Your task to perform on an android device: Look up the best rated gaming chairs on Target. Image 0: 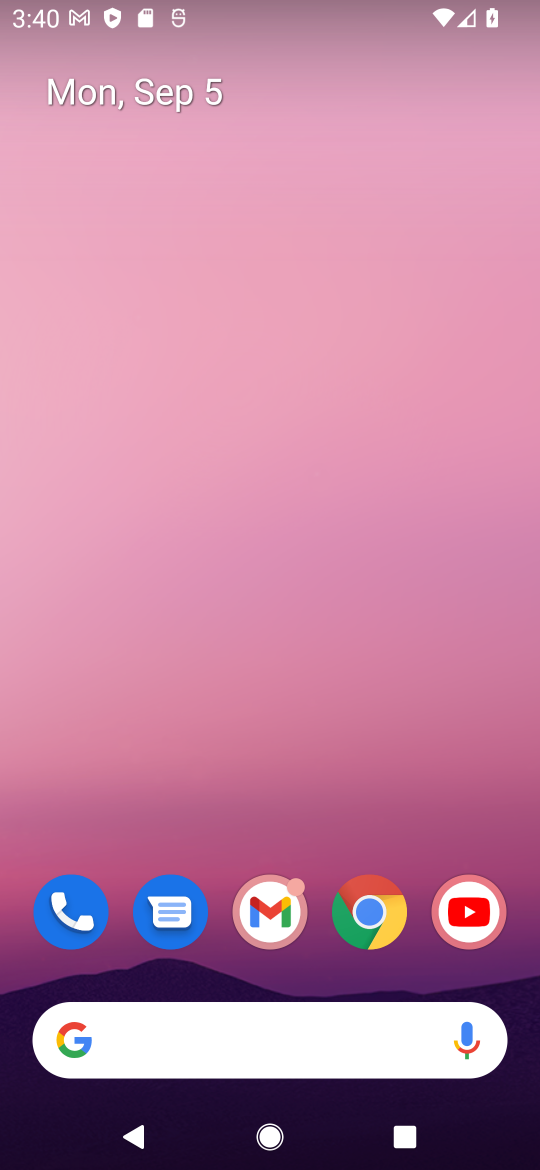
Step 0: click (387, 931)
Your task to perform on an android device: Look up the best rated gaming chairs on Target. Image 1: 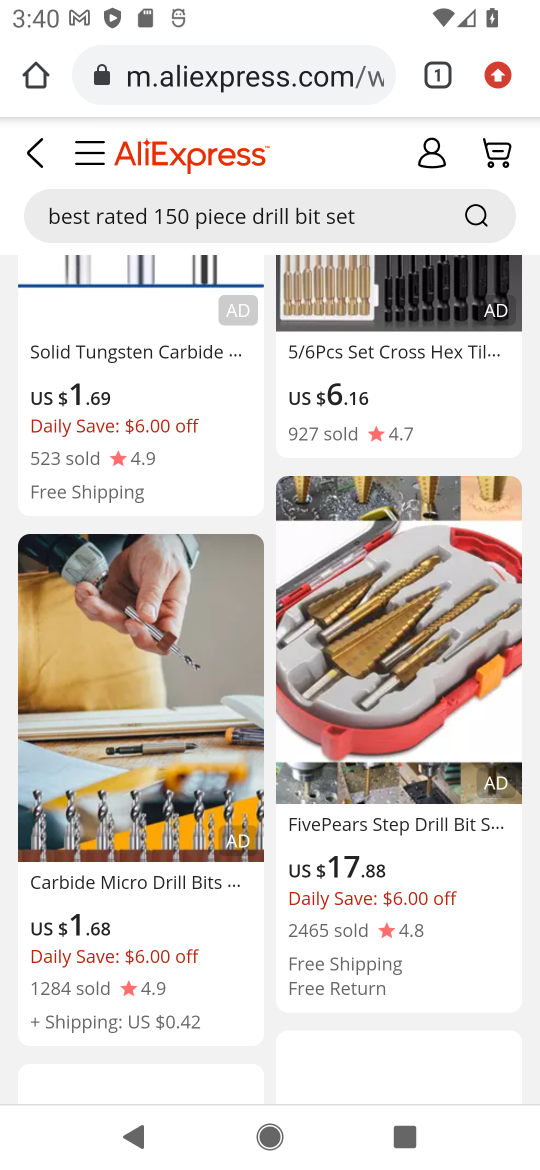
Step 1: click (237, 80)
Your task to perform on an android device: Look up the best rated gaming chairs on Target. Image 2: 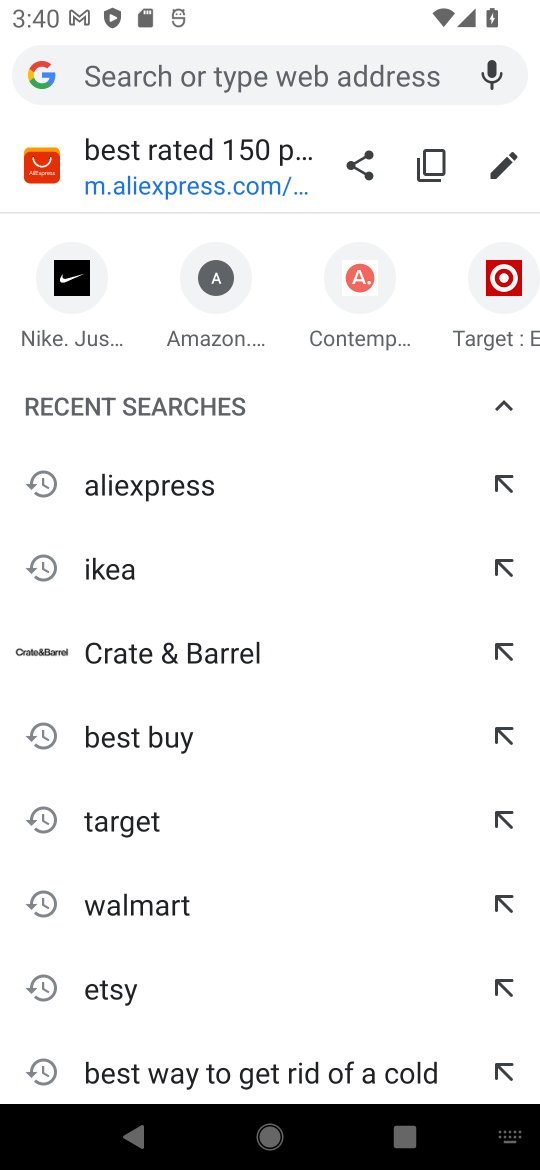
Step 2: type "target"
Your task to perform on an android device: Look up the best rated gaming chairs on Target. Image 3: 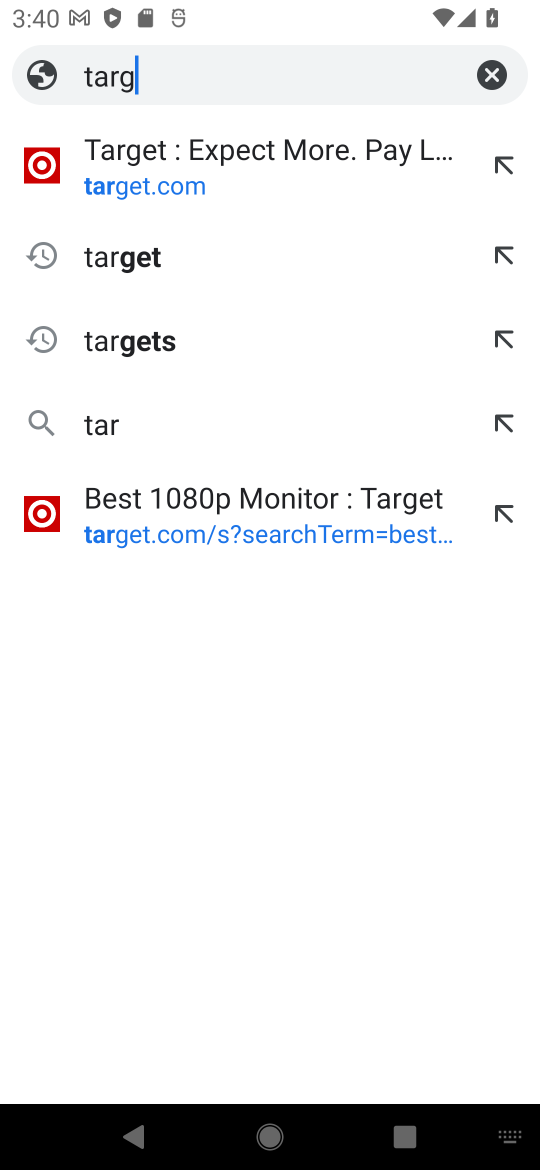
Step 3: type ""
Your task to perform on an android device: Look up the best rated gaming chairs on Target. Image 4: 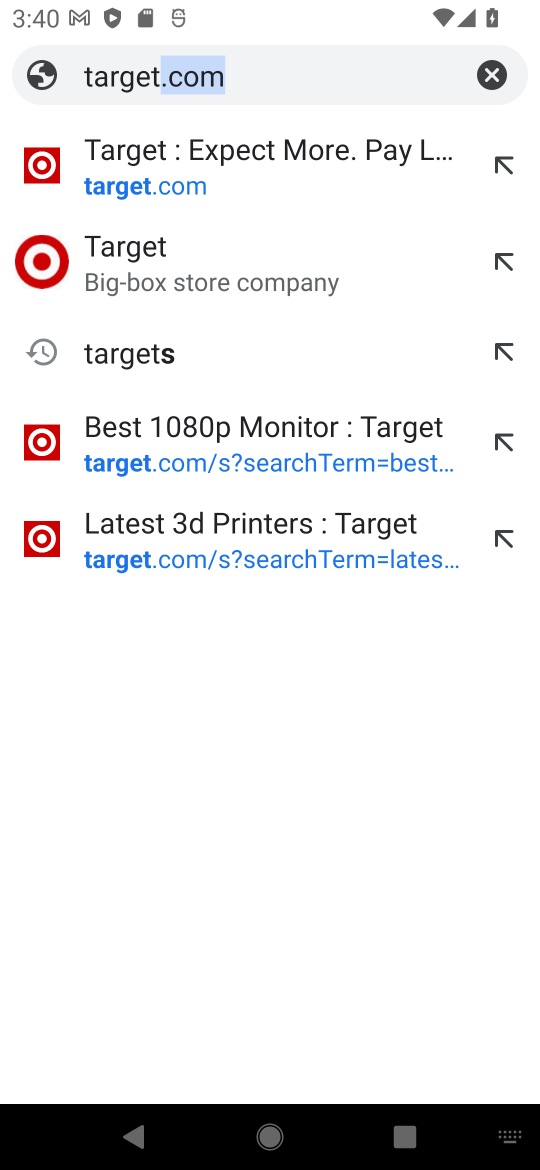
Step 4: press enter
Your task to perform on an android device: Look up the best rated gaming chairs on Target. Image 5: 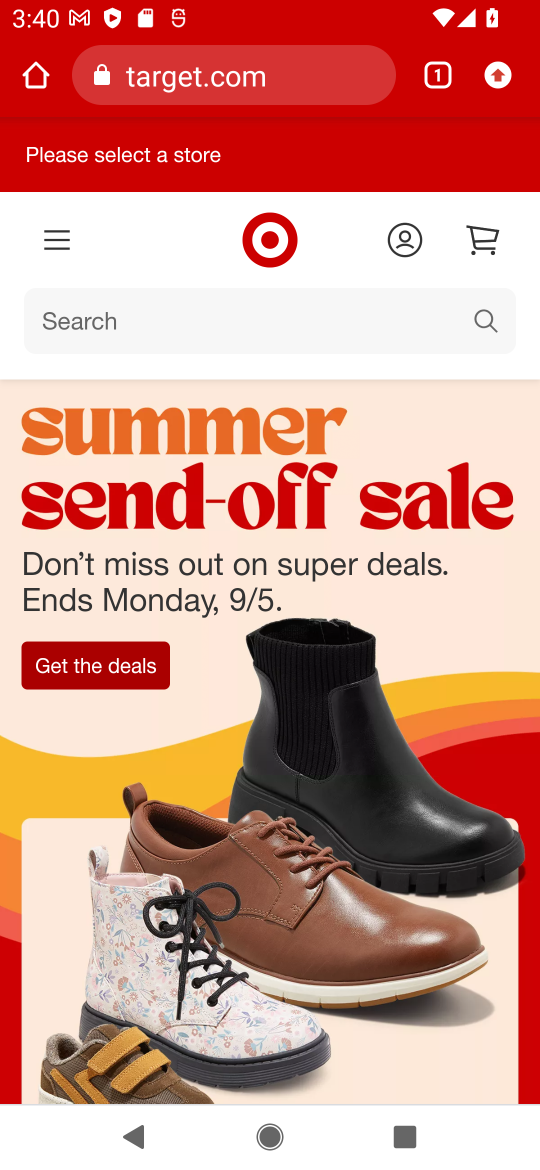
Step 5: click (172, 334)
Your task to perform on an android device: Look up the best rated gaming chairs on Target. Image 6: 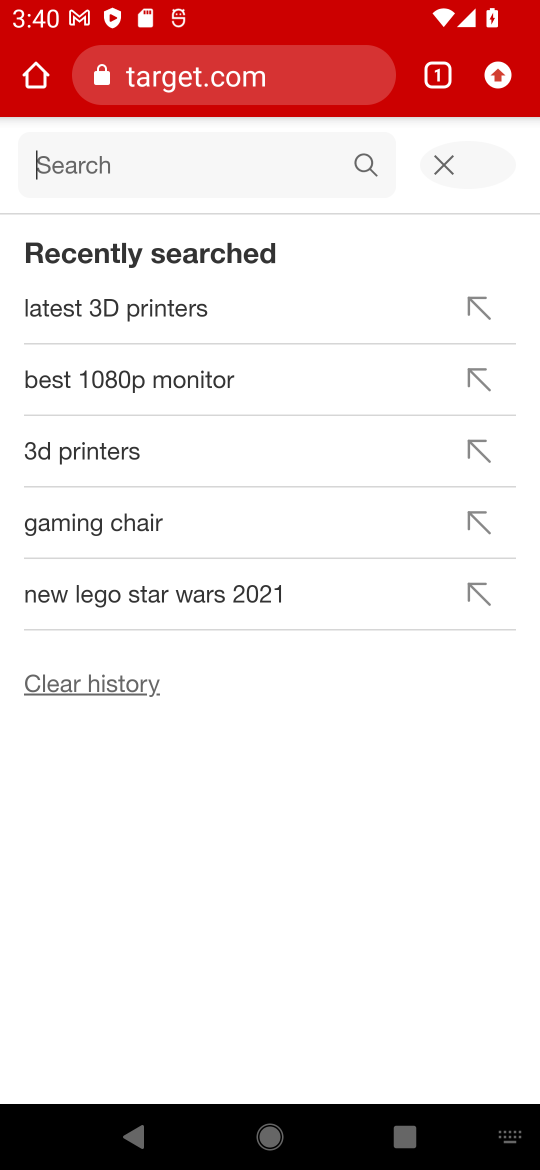
Step 6: type "best rated gaming chairs"
Your task to perform on an android device: Look up the best rated gaming chairs on Target. Image 7: 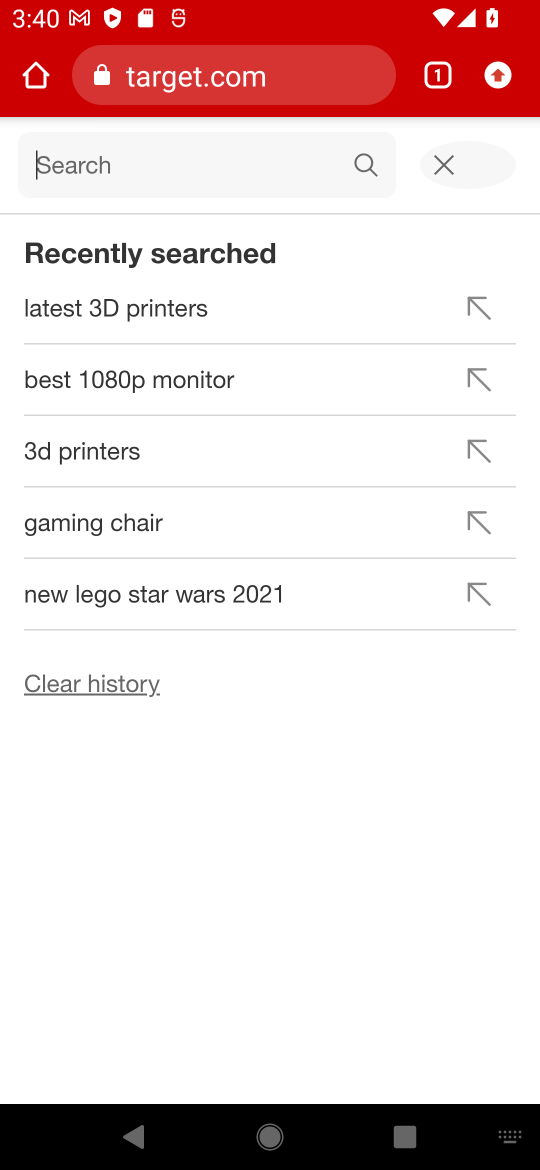
Step 7: type ""
Your task to perform on an android device: Look up the best rated gaming chairs on Target. Image 8: 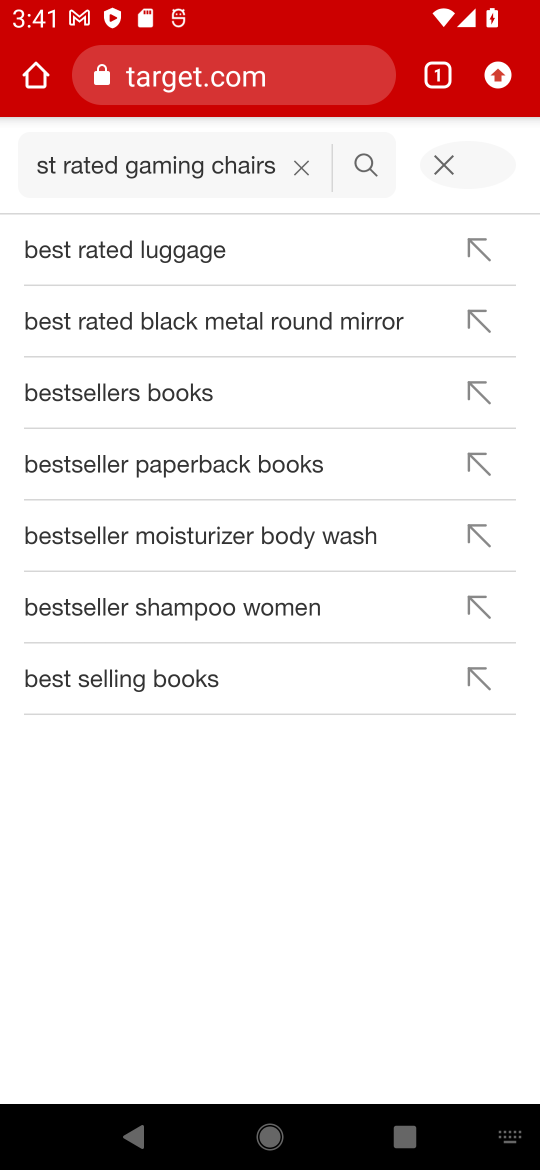
Step 8: press enter
Your task to perform on an android device: Look up the best rated gaming chairs on Target. Image 9: 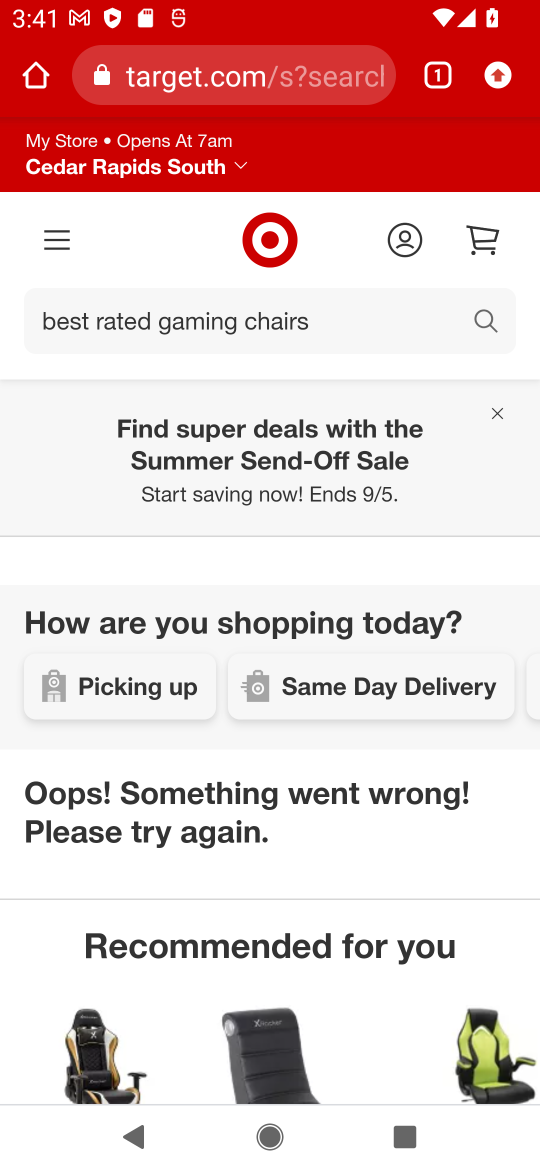
Step 9: click (210, 774)
Your task to perform on an android device: Look up the best rated gaming chairs on Target. Image 10: 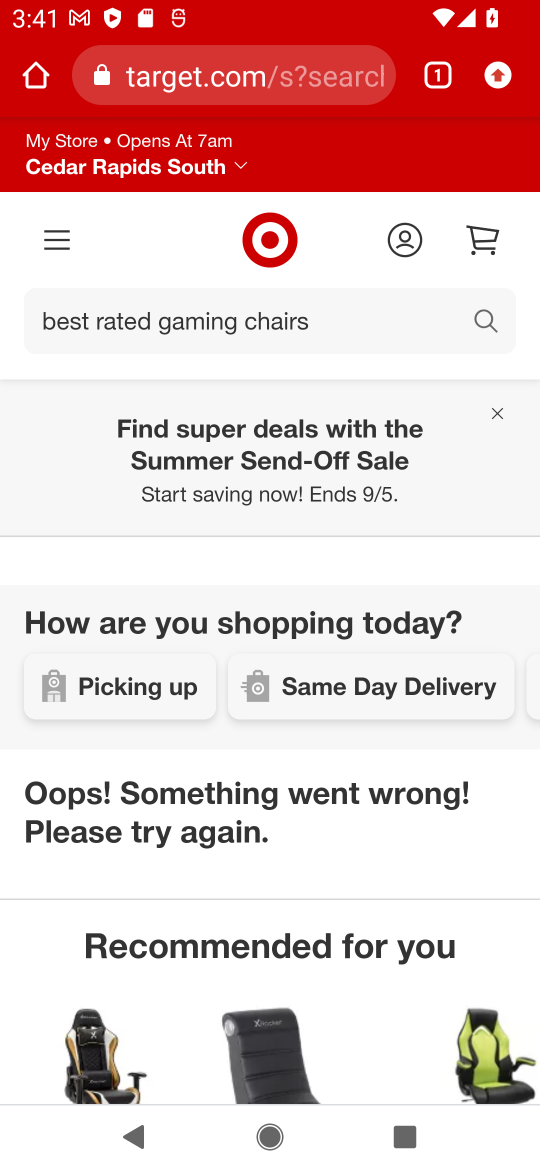
Step 10: drag from (400, 872) to (421, 475)
Your task to perform on an android device: Look up the best rated gaming chairs on Target. Image 11: 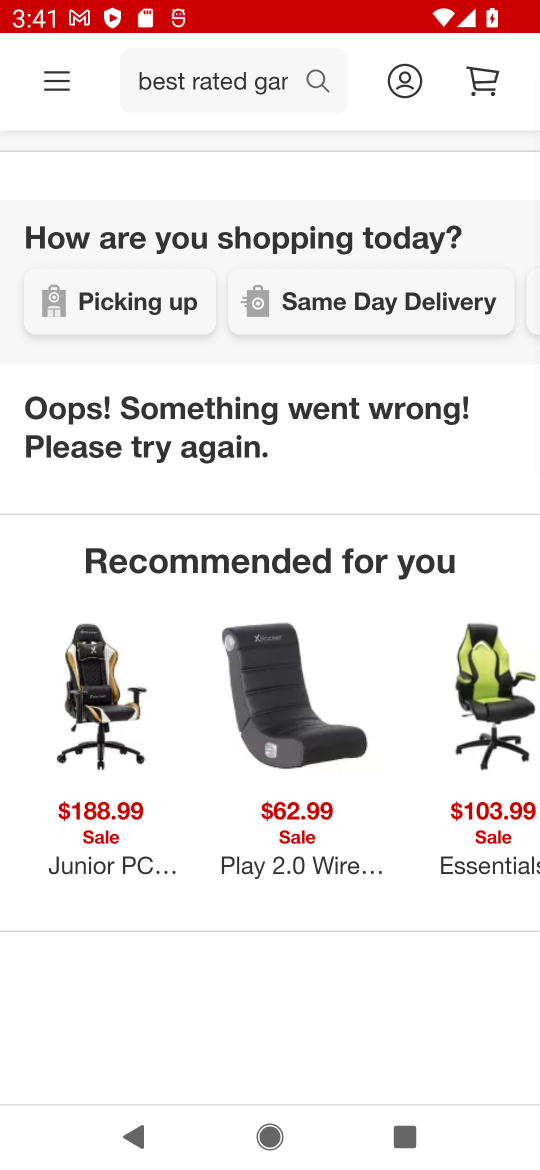
Step 11: drag from (376, 630) to (369, 423)
Your task to perform on an android device: Look up the best rated gaming chairs on Target. Image 12: 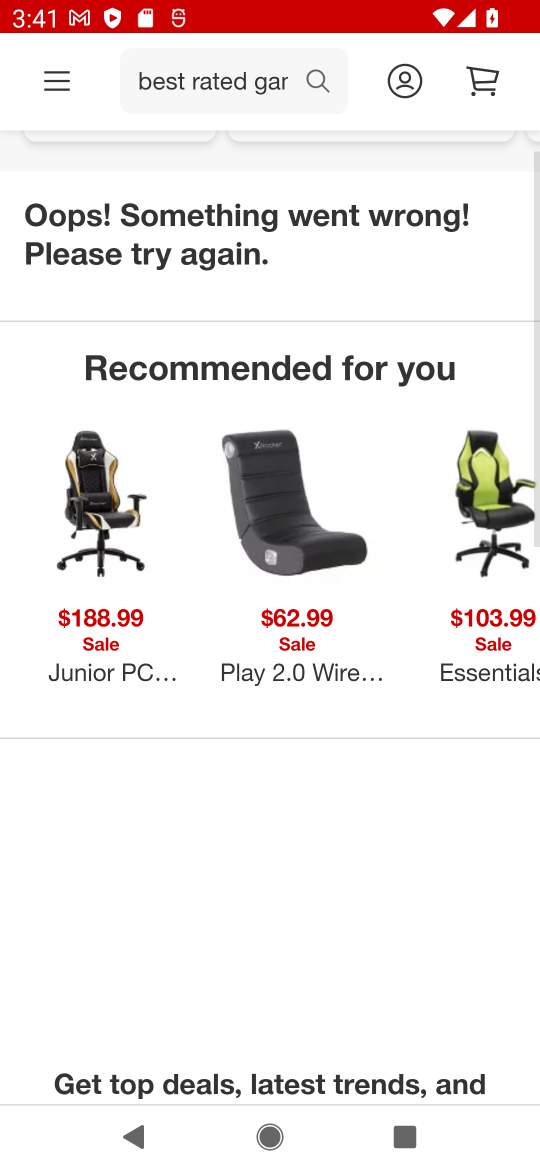
Step 12: drag from (324, 872) to (333, 437)
Your task to perform on an android device: Look up the best rated gaming chairs on Target. Image 13: 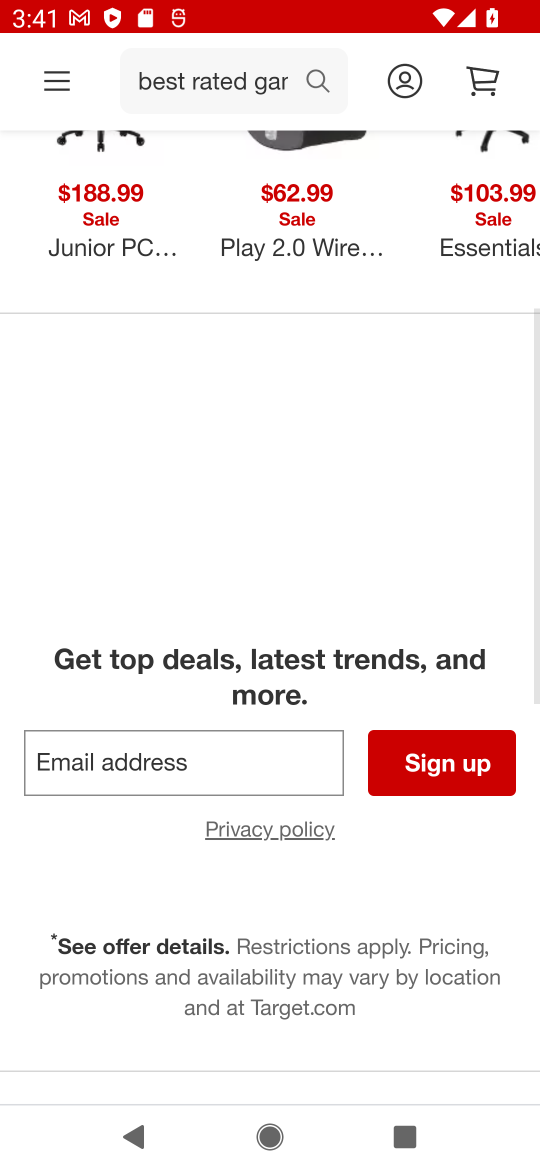
Step 13: drag from (317, 949) to (315, 884)
Your task to perform on an android device: Look up the best rated gaming chairs on Target. Image 14: 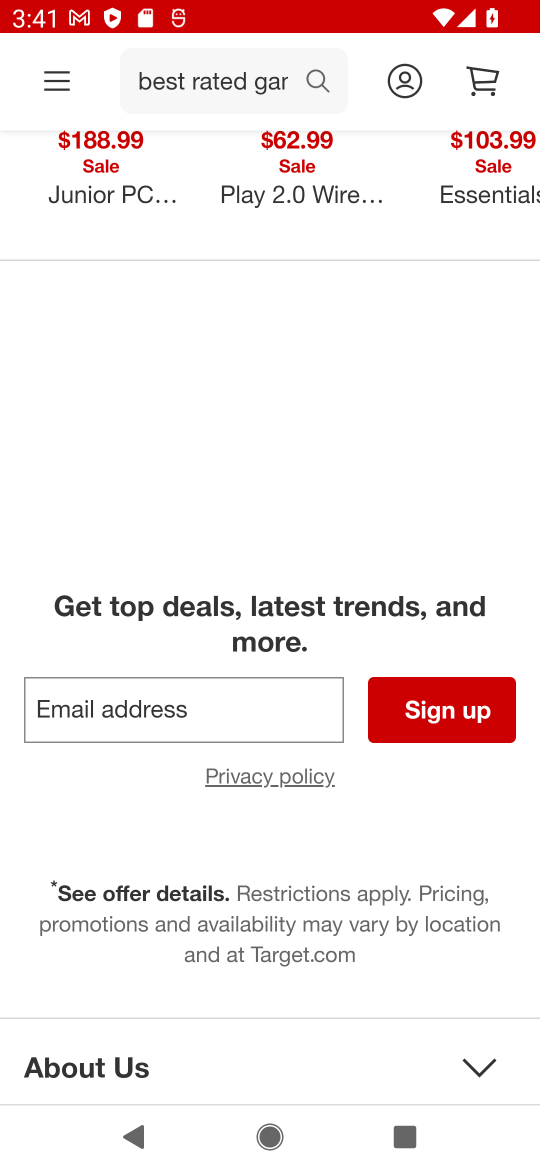
Step 14: drag from (275, 450) to (299, 806)
Your task to perform on an android device: Look up the best rated gaming chairs on Target. Image 15: 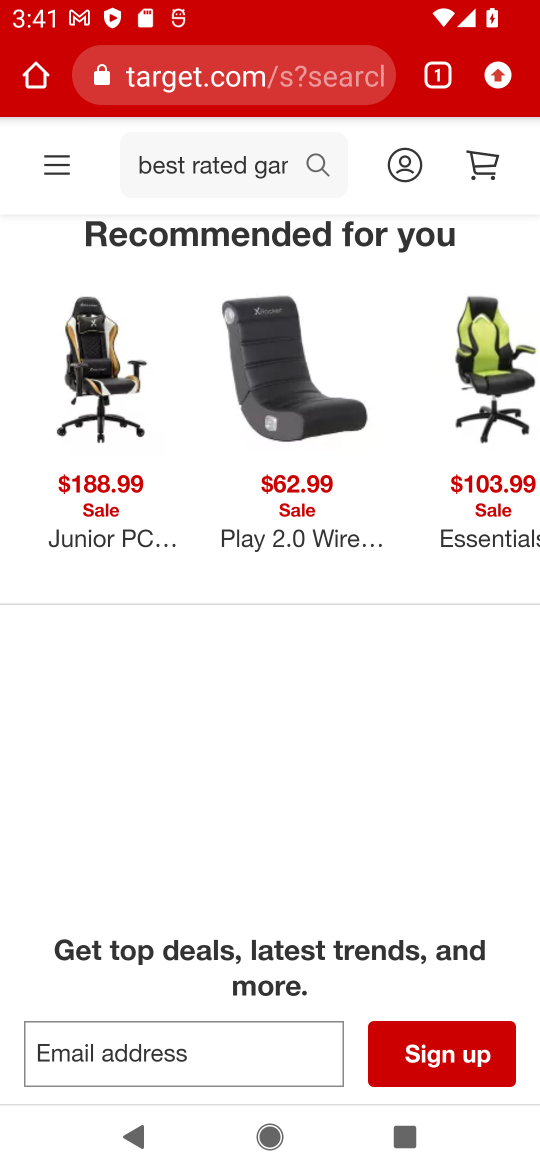
Step 15: click (289, 176)
Your task to perform on an android device: Look up the best rated gaming chairs on Target. Image 16: 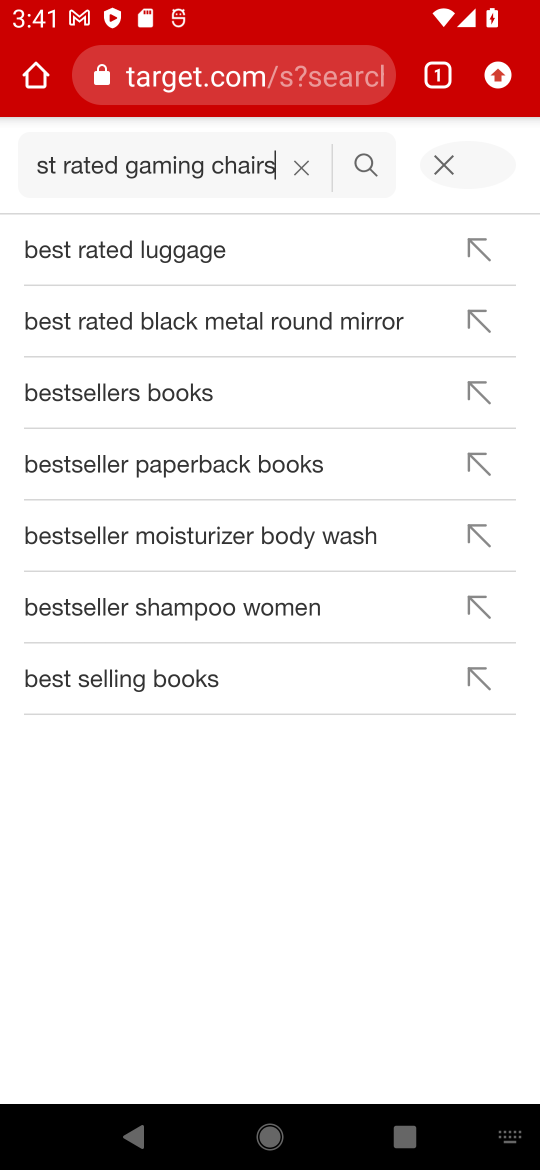
Step 16: click (305, 167)
Your task to perform on an android device: Look up the best rated gaming chairs on Target. Image 17: 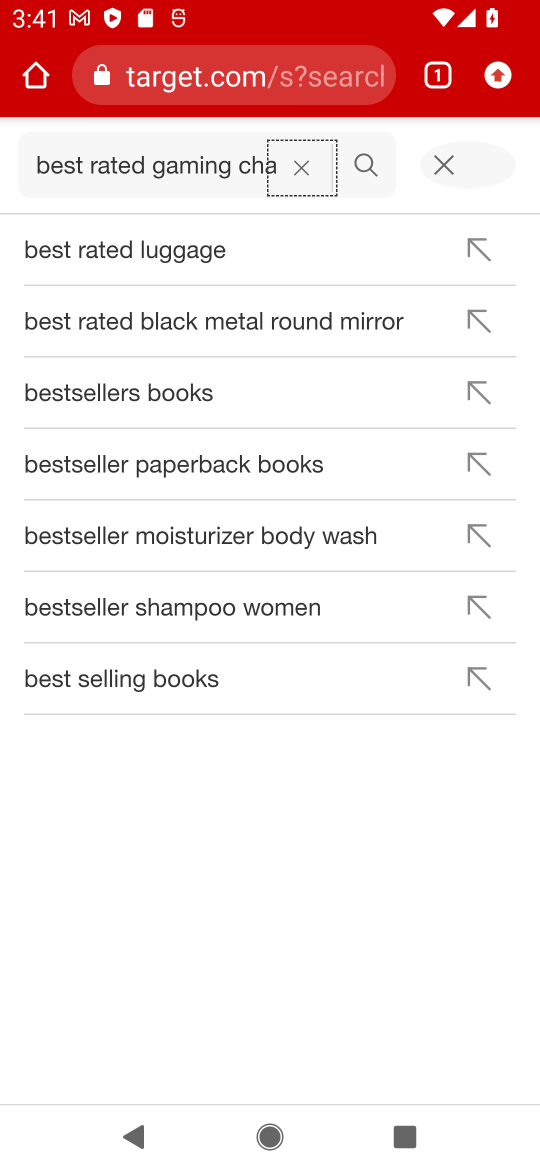
Step 17: click (290, 167)
Your task to perform on an android device: Look up the best rated gaming chairs on Target. Image 18: 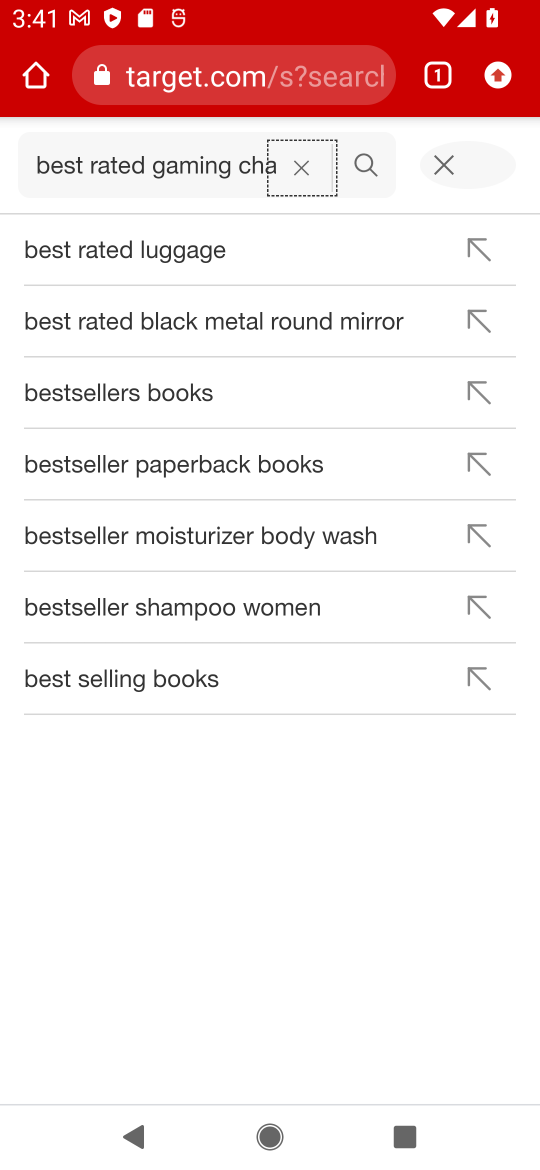
Step 18: click (309, 162)
Your task to perform on an android device: Look up the best rated gaming chairs on Target. Image 19: 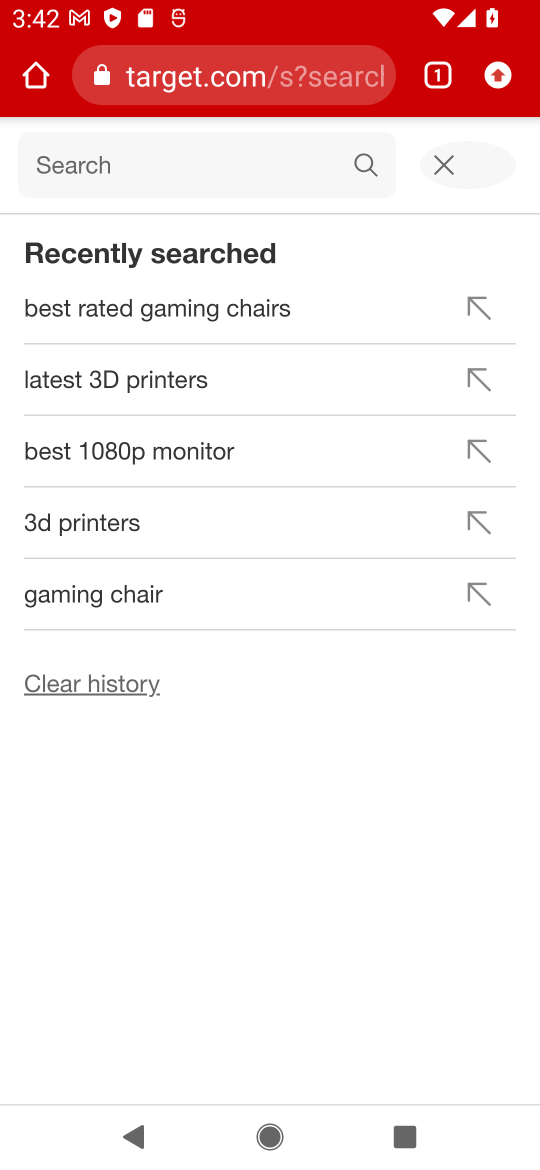
Step 19: click (295, 172)
Your task to perform on an android device: Look up the best rated gaming chairs on Target. Image 20: 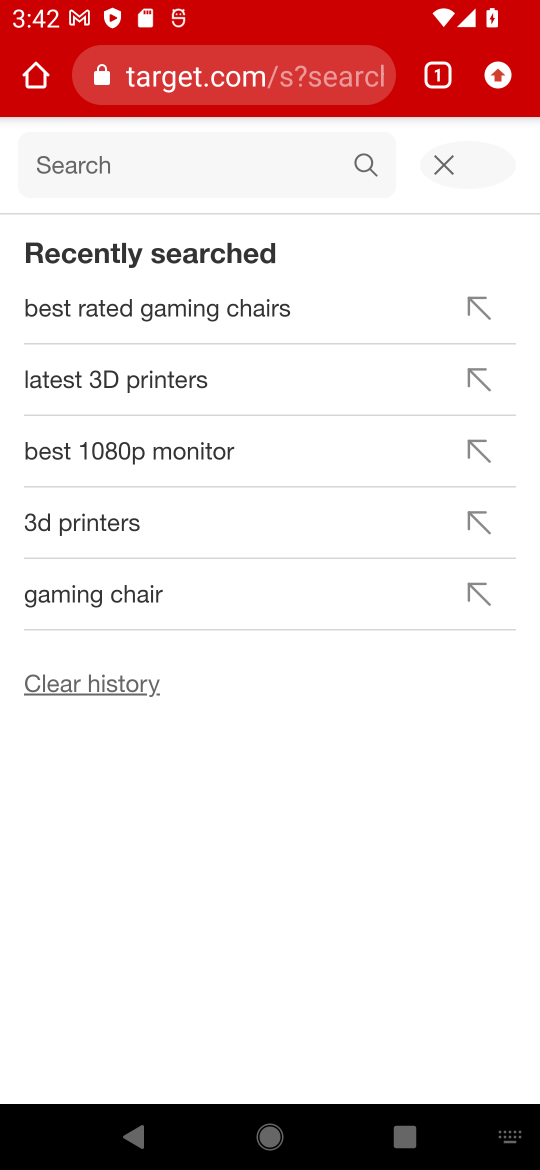
Step 20: click (171, 164)
Your task to perform on an android device: Look up the best rated gaming chairs on Target. Image 21: 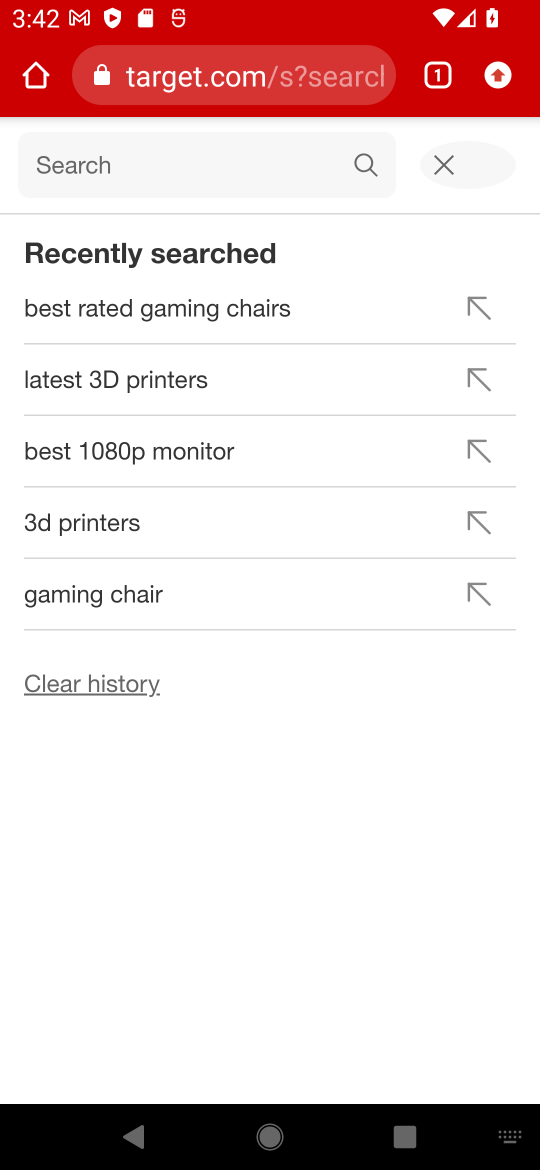
Step 21: type "gaming chairs"
Your task to perform on an android device: Look up the best rated gaming chairs on Target. Image 22: 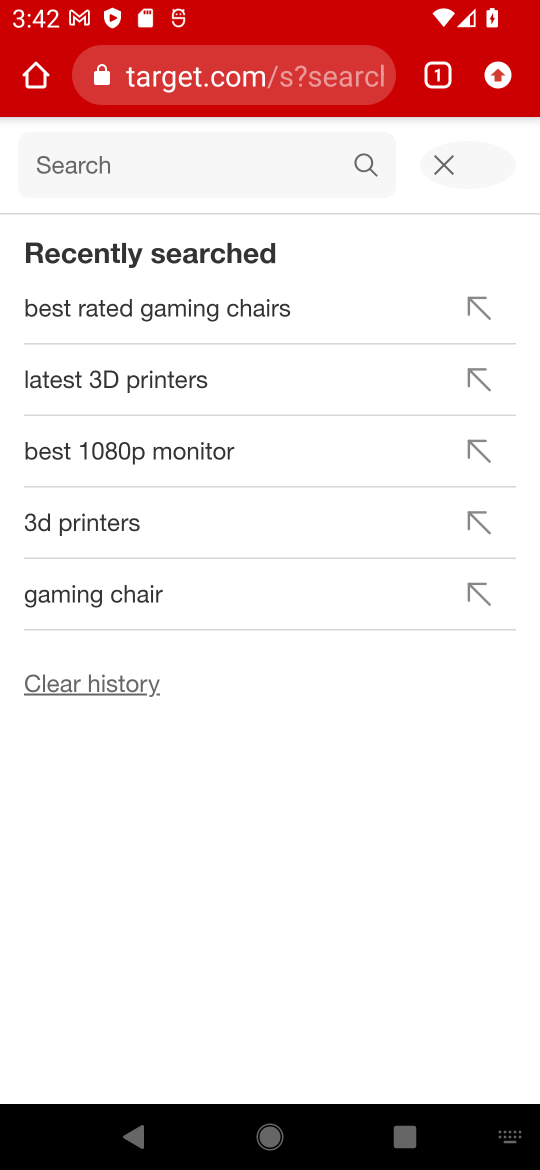
Step 22: type ""
Your task to perform on an android device: Look up the best rated gaming chairs on Target. Image 23: 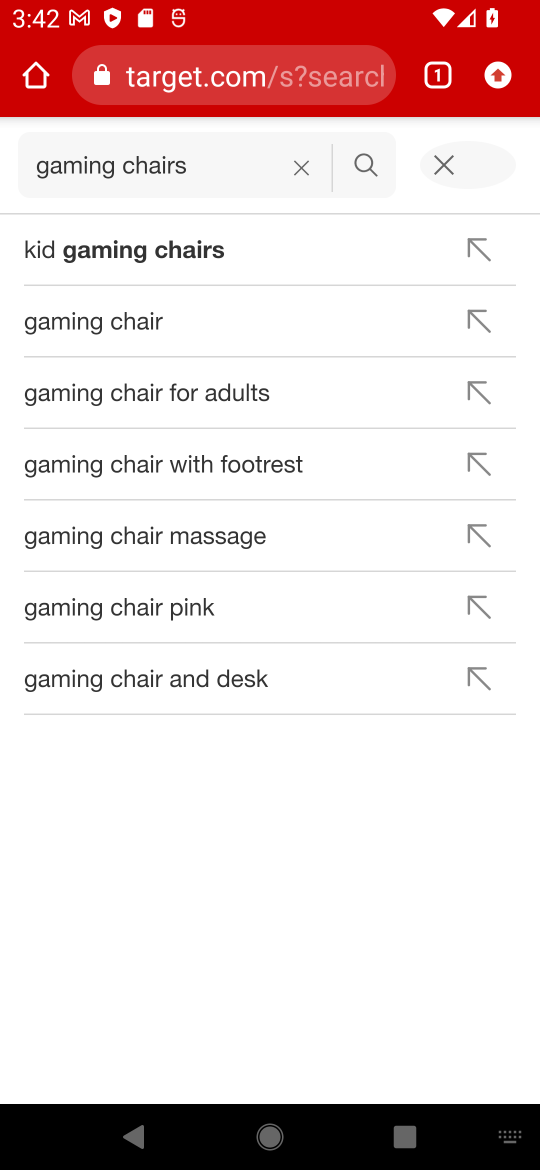
Step 23: press enter
Your task to perform on an android device: Look up the best rated gaming chairs on Target. Image 24: 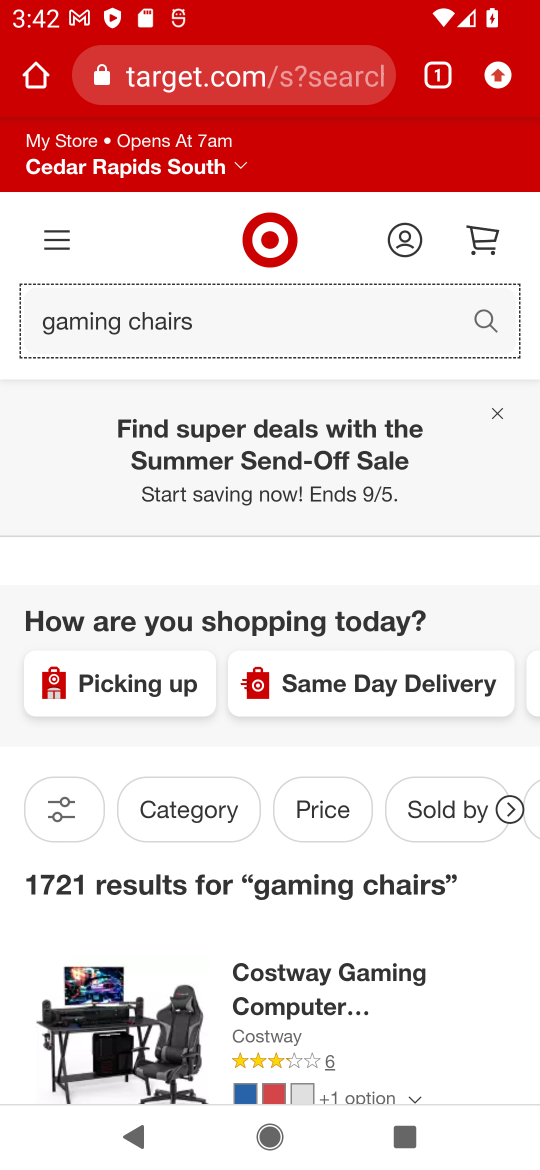
Step 24: click (60, 804)
Your task to perform on an android device: Look up the best rated gaming chairs on Target. Image 25: 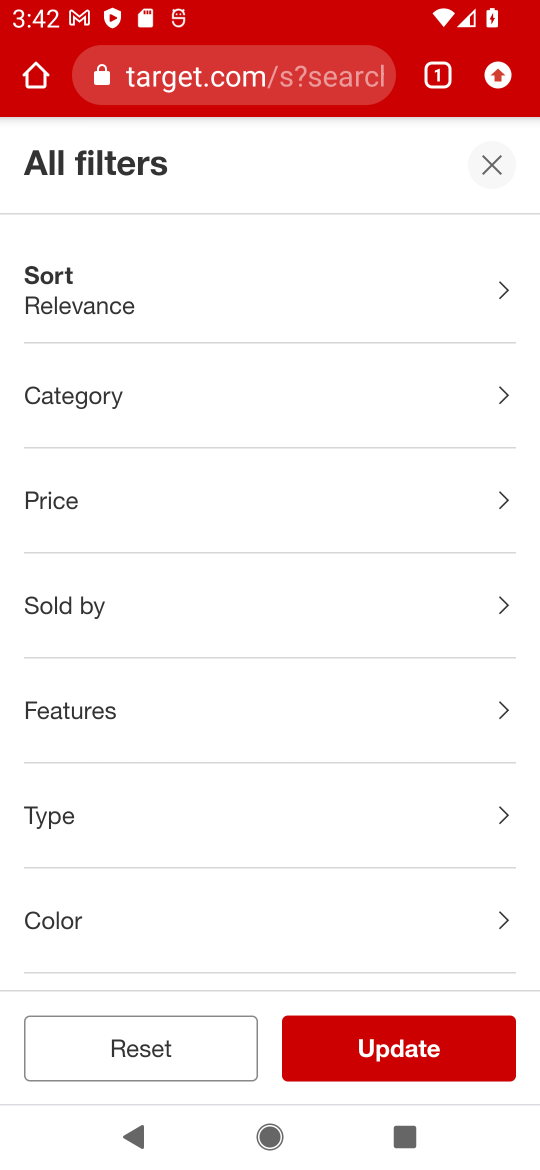
Step 25: click (283, 317)
Your task to perform on an android device: Look up the best rated gaming chairs on Target. Image 26: 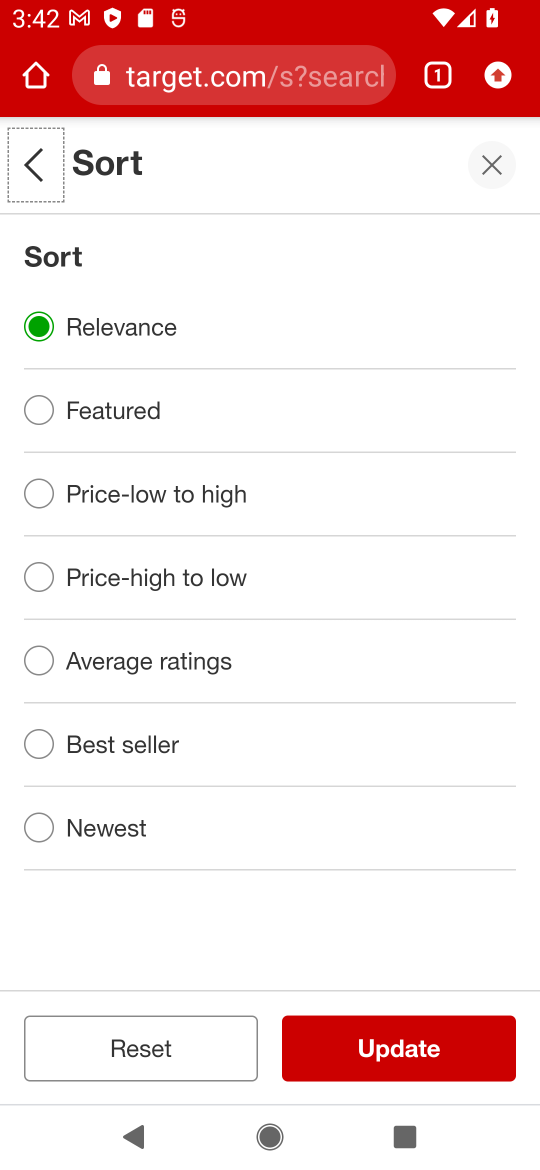
Step 26: click (486, 165)
Your task to perform on an android device: Look up the best rated gaming chairs on Target. Image 27: 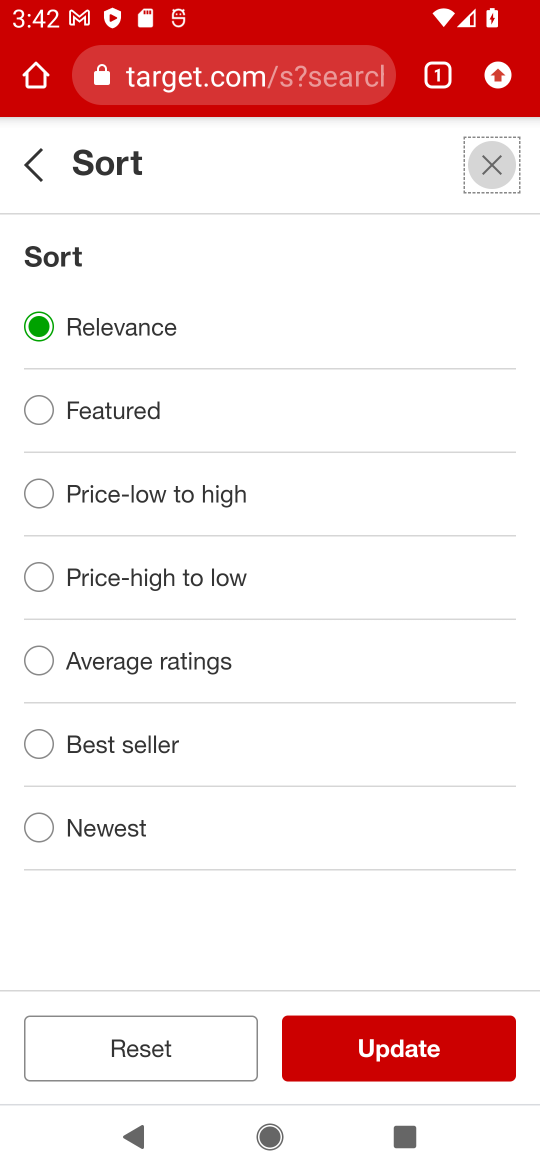
Step 27: click (26, 159)
Your task to perform on an android device: Look up the best rated gaming chairs on Target. Image 28: 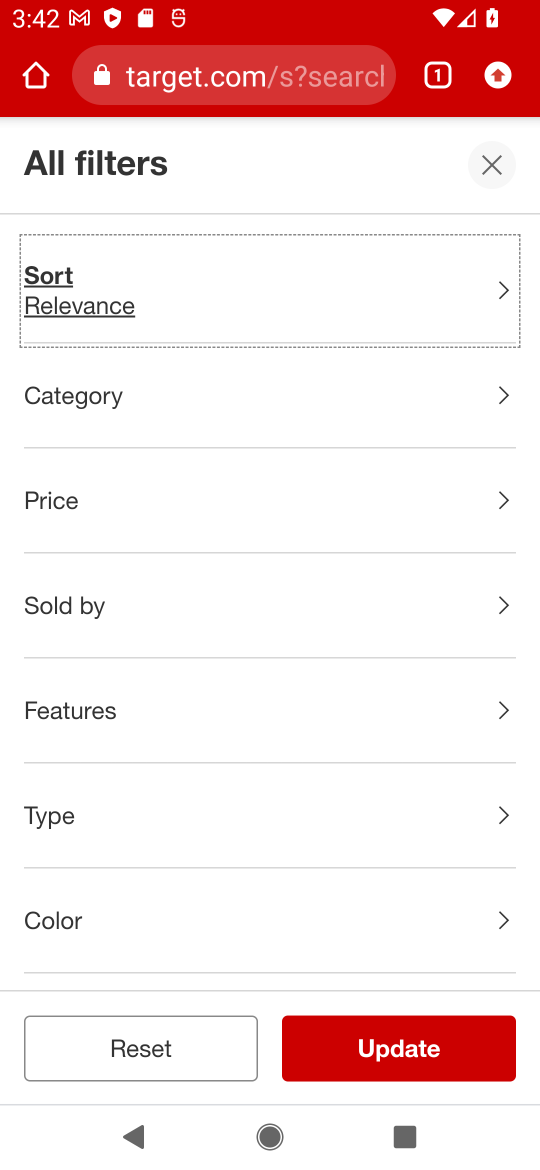
Step 28: drag from (271, 826) to (244, 250)
Your task to perform on an android device: Look up the best rated gaming chairs on Target. Image 29: 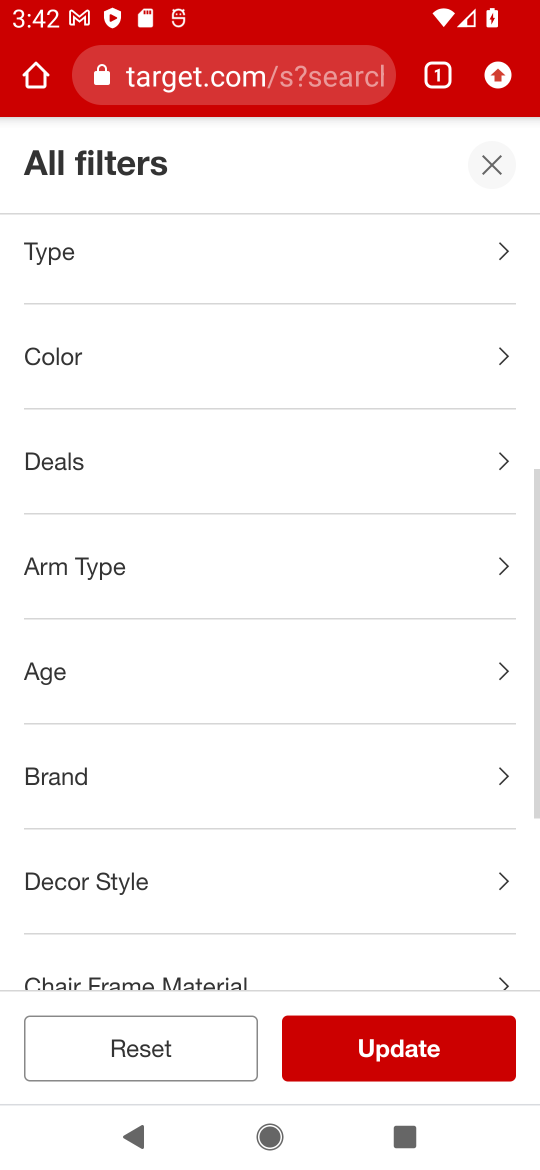
Step 29: drag from (296, 833) to (303, 321)
Your task to perform on an android device: Look up the best rated gaming chairs on Target. Image 30: 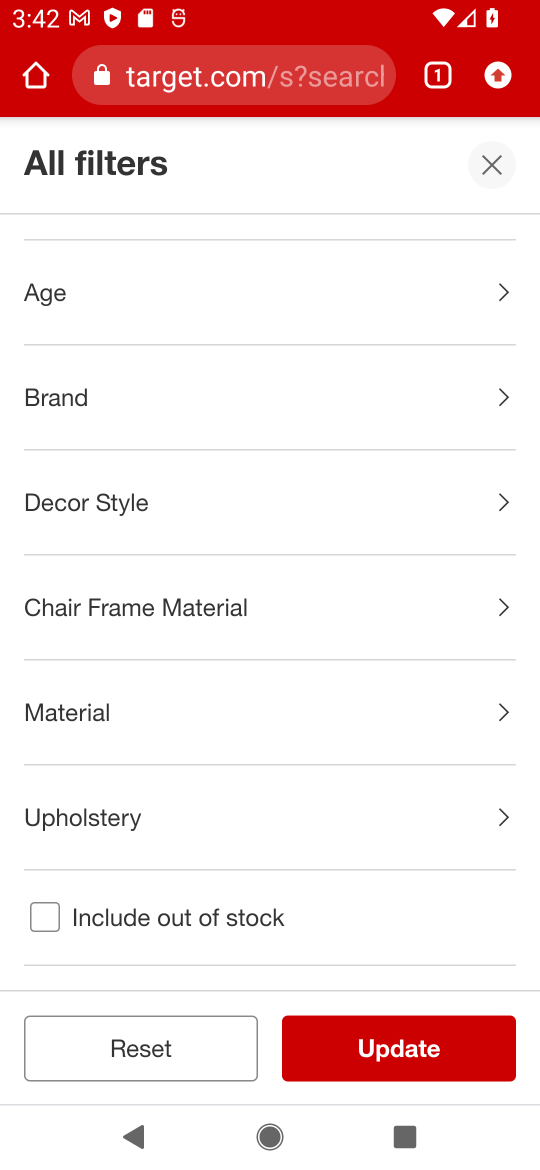
Step 30: drag from (322, 806) to (316, 332)
Your task to perform on an android device: Look up the best rated gaming chairs on Target. Image 31: 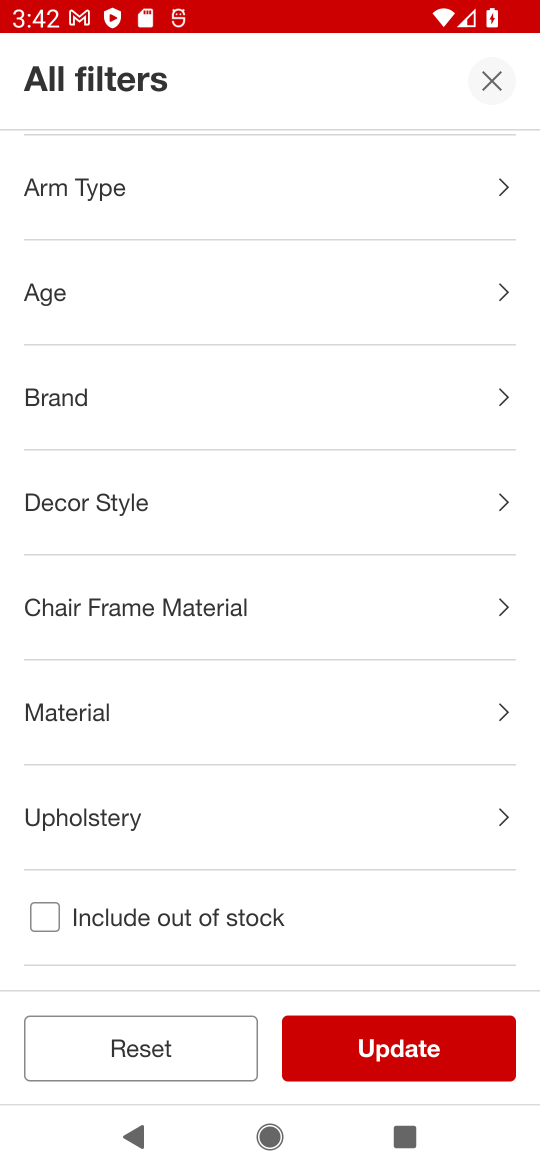
Step 31: drag from (320, 354) to (366, 848)
Your task to perform on an android device: Look up the best rated gaming chairs on Target. Image 32: 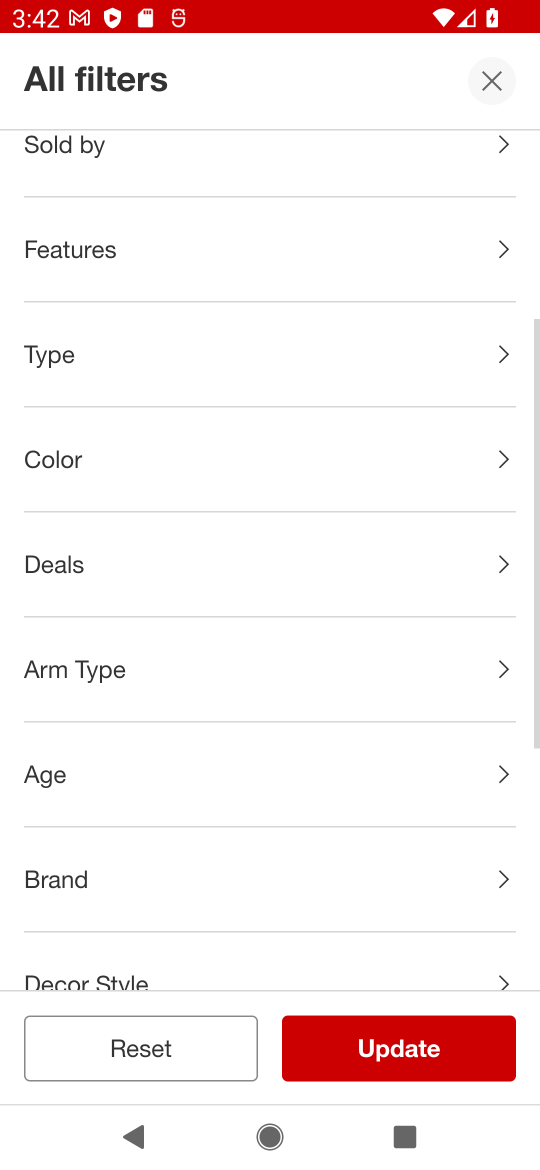
Step 32: drag from (365, 703) to (395, 836)
Your task to perform on an android device: Look up the best rated gaming chairs on Target. Image 33: 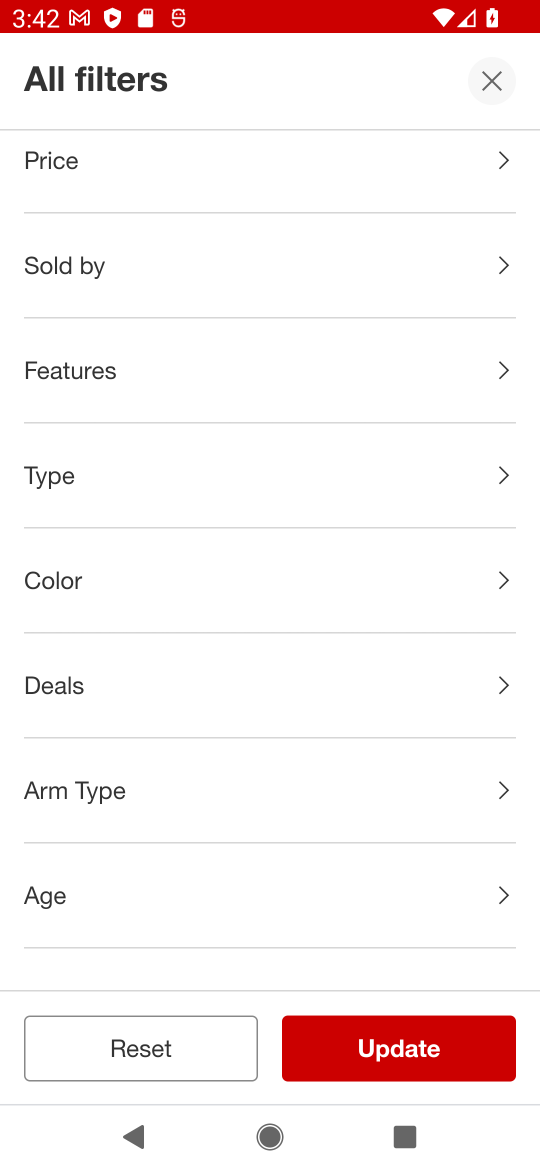
Step 33: drag from (340, 253) to (362, 732)
Your task to perform on an android device: Look up the best rated gaming chairs on Target. Image 34: 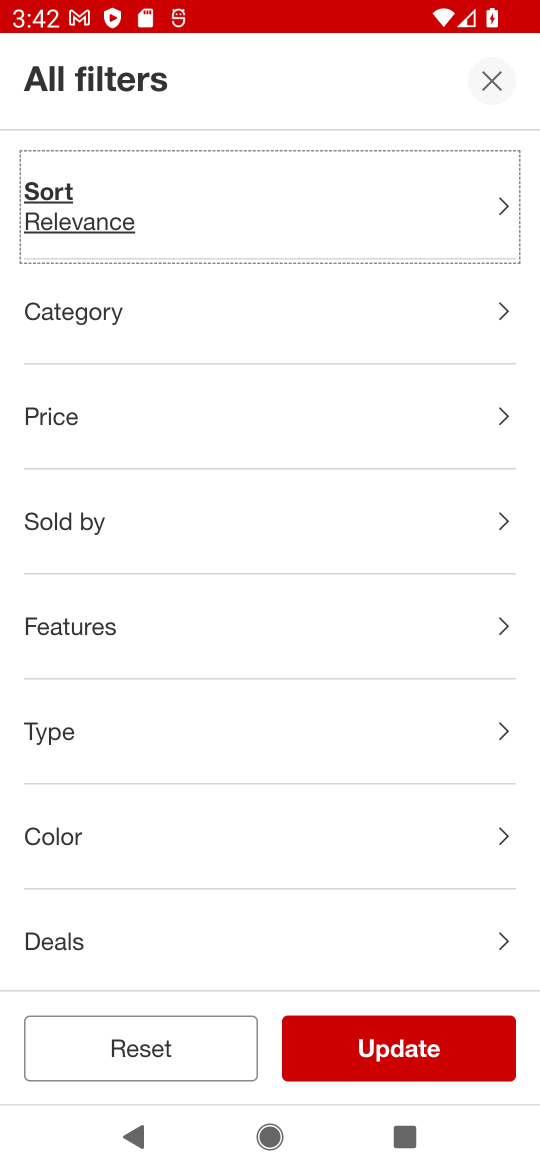
Step 34: click (431, 213)
Your task to perform on an android device: Look up the best rated gaming chairs on Target. Image 35: 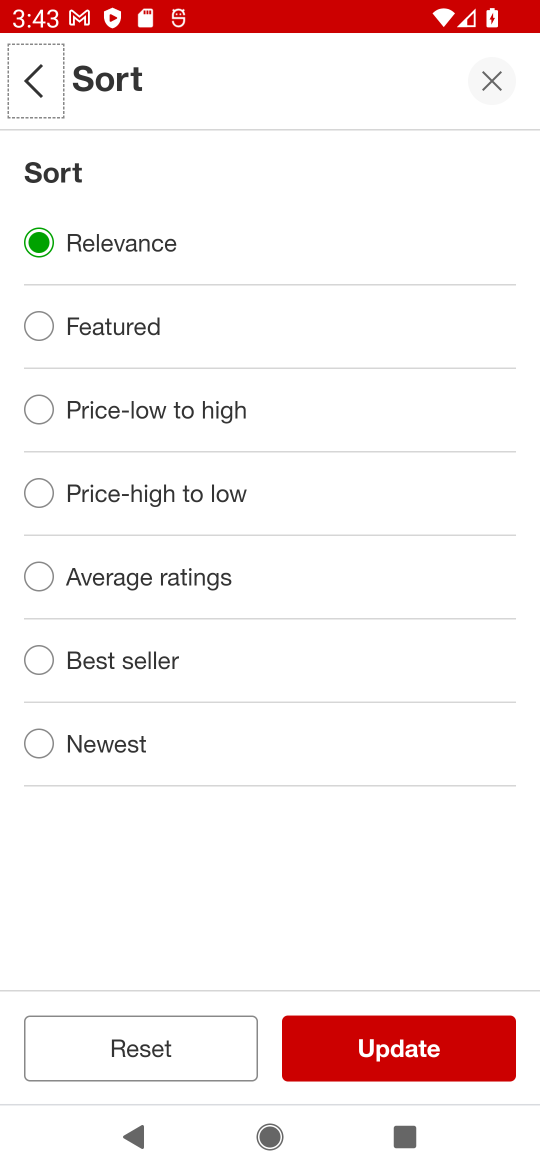
Step 35: click (247, 574)
Your task to perform on an android device: Look up the best rated gaming chairs on Target. Image 36: 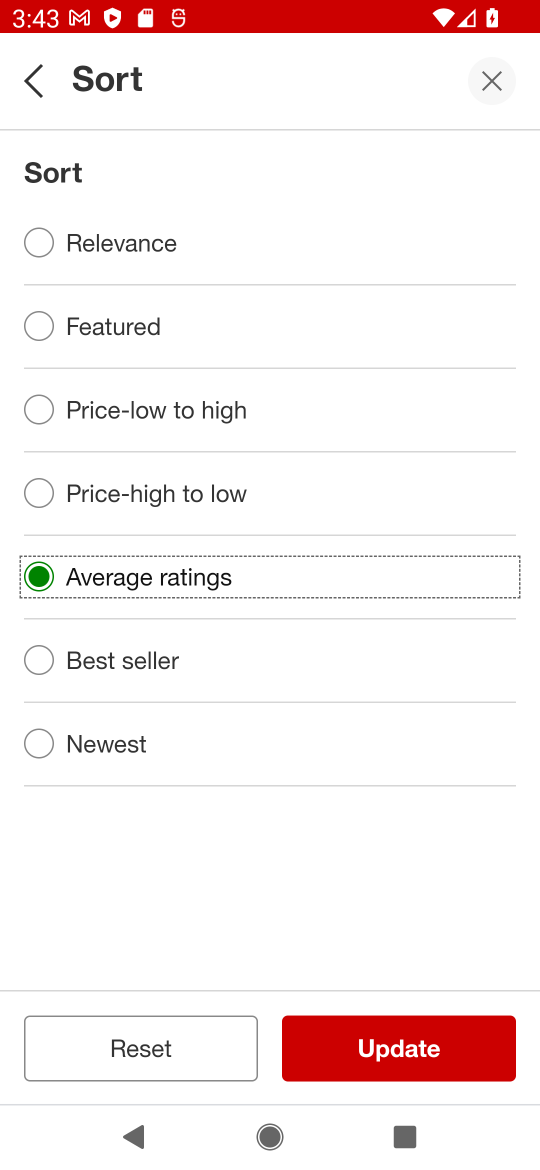
Step 36: click (443, 1036)
Your task to perform on an android device: Look up the best rated gaming chairs on Target. Image 37: 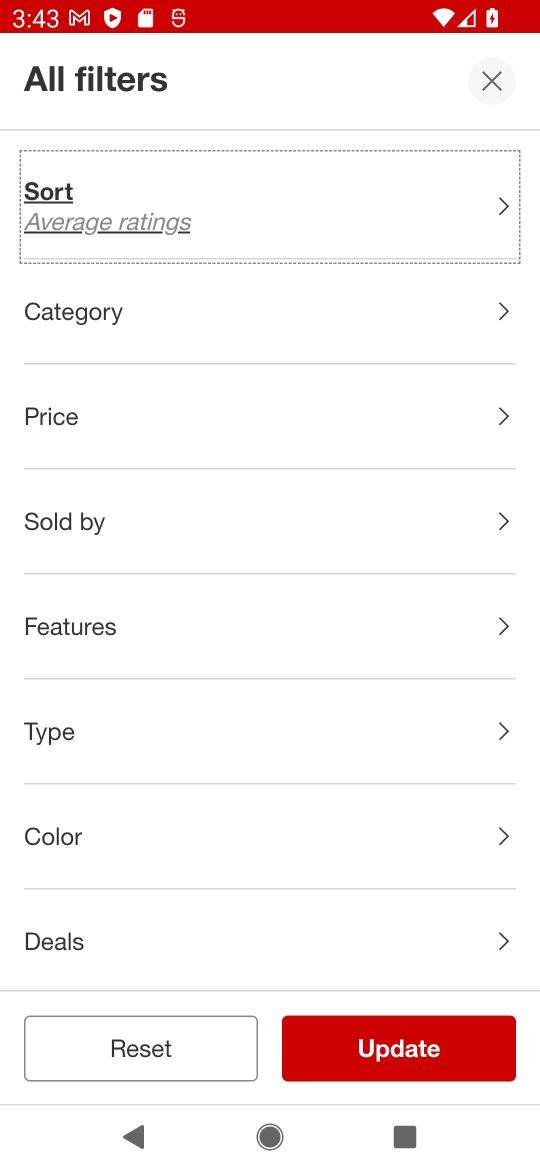
Step 37: task complete